Your task to perform on an android device: star an email in the gmail app Image 0: 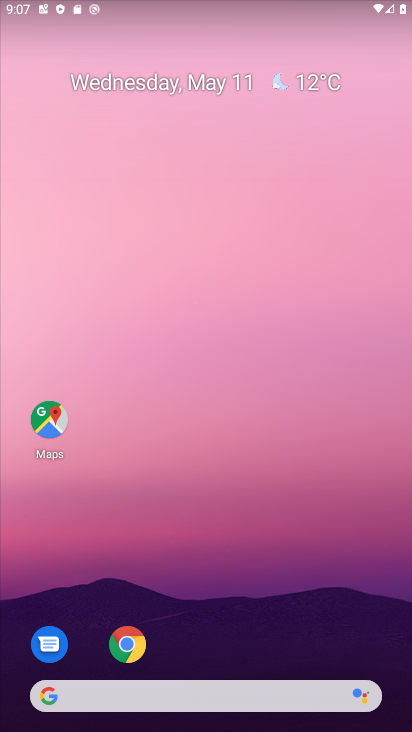
Step 0: drag from (182, 623) to (242, 214)
Your task to perform on an android device: star an email in the gmail app Image 1: 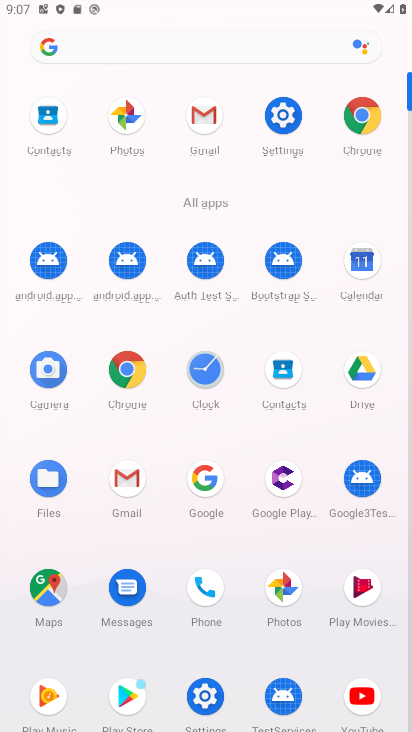
Step 1: click (209, 127)
Your task to perform on an android device: star an email in the gmail app Image 2: 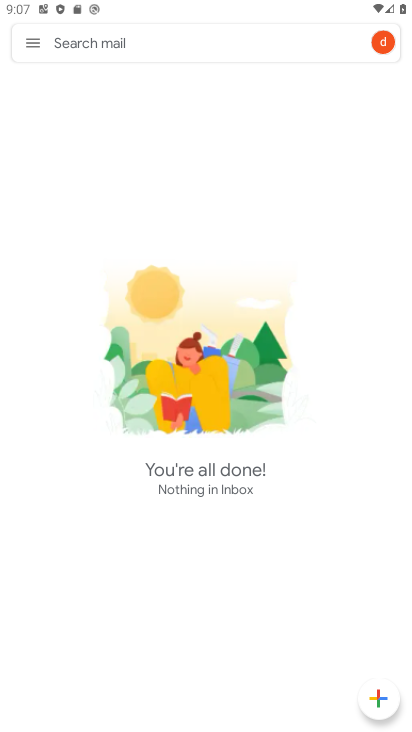
Step 2: click (30, 43)
Your task to perform on an android device: star an email in the gmail app Image 3: 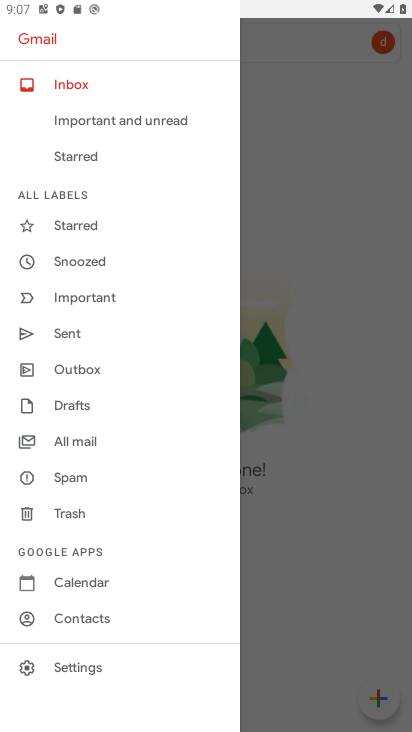
Step 3: click (268, 273)
Your task to perform on an android device: star an email in the gmail app Image 4: 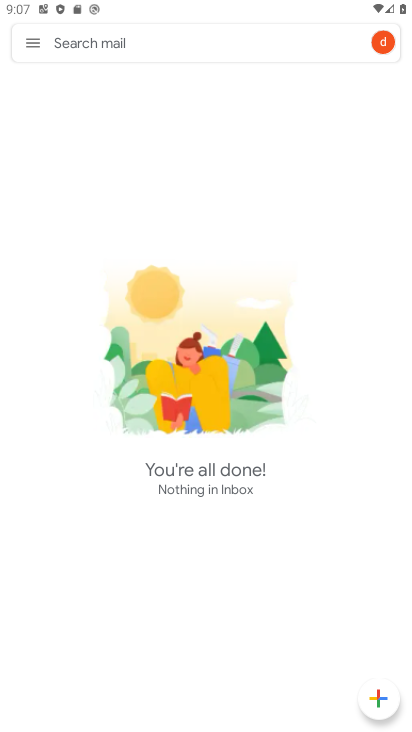
Step 4: task complete